Your task to perform on an android device: find snoozed emails in the gmail app Image 0: 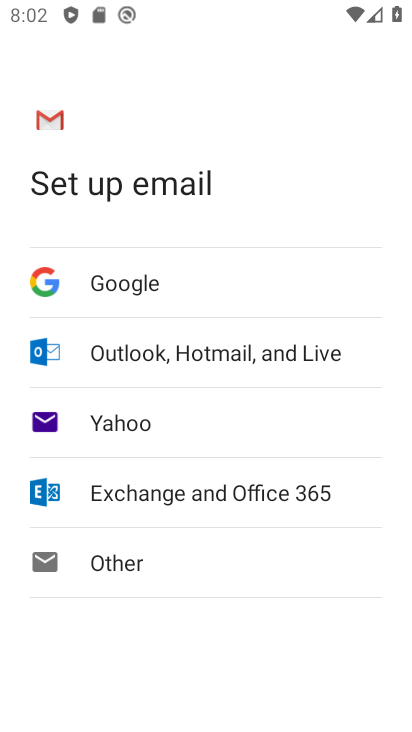
Step 0: press home button
Your task to perform on an android device: find snoozed emails in the gmail app Image 1: 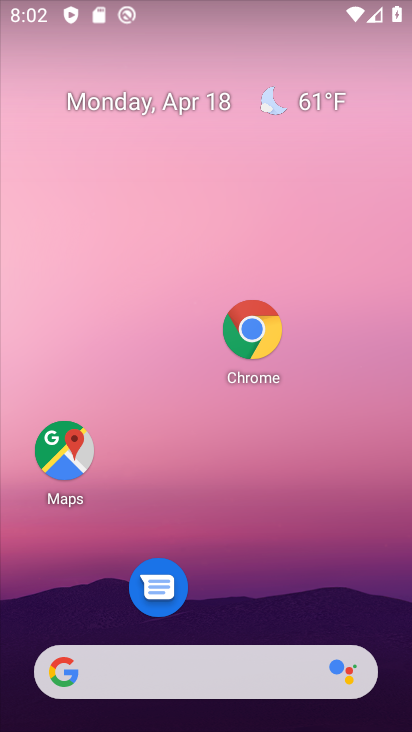
Step 1: drag from (236, 532) to (247, 201)
Your task to perform on an android device: find snoozed emails in the gmail app Image 2: 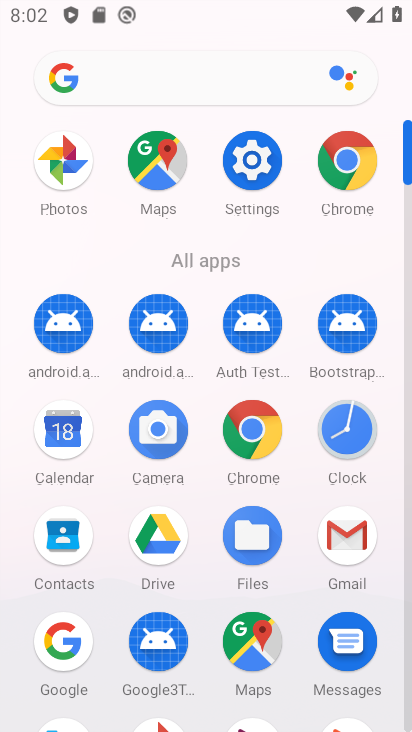
Step 2: click (334, 533)
Your task to perform on an android device: find snoozed emails in the gmail app Image 3: 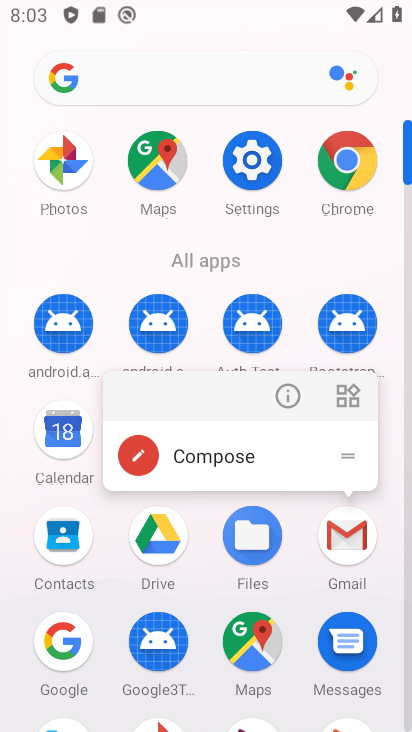
Step 3: click (335, 532)
Your task to perform on an android device: find snoozed emails in the gmail app Image 4: 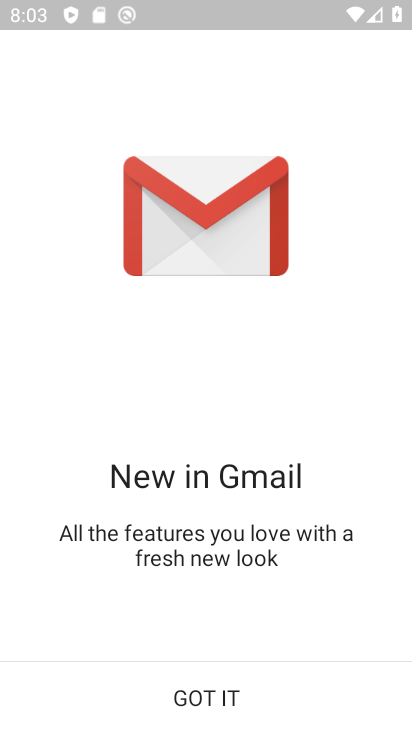
Step 4: click (209, 694)
Your task to perform on an android device: find snoozed emails in the gmail app Image 5: 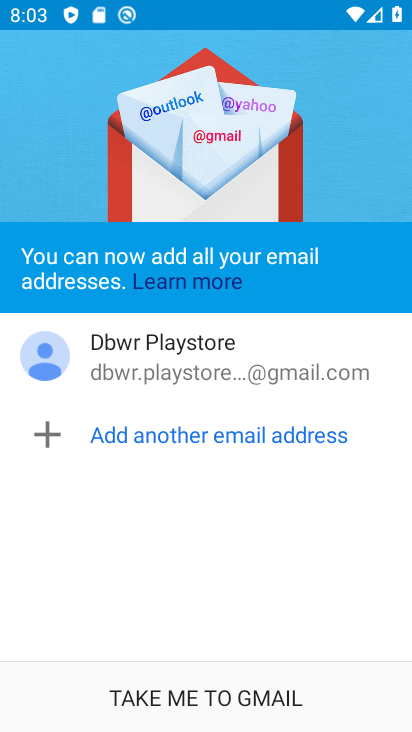
Step 5: click (209, 694)
Your task to perform on an android device: find snoozed emails in the gmail app Image 6: 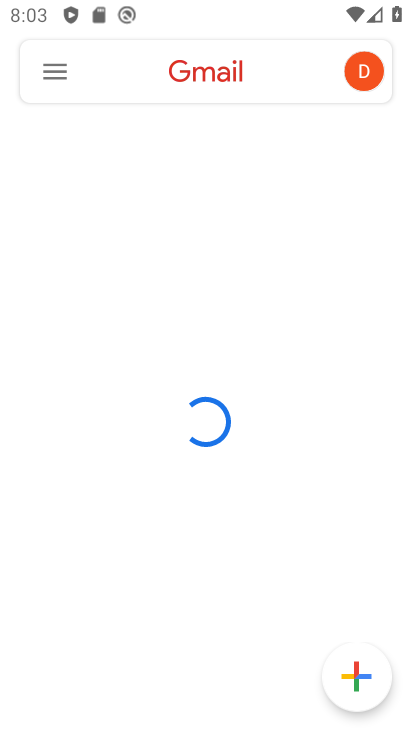
Step 6: click (55, 71)
Your task to perform on an android device: find snoozed emails in the gmail app Image 7: 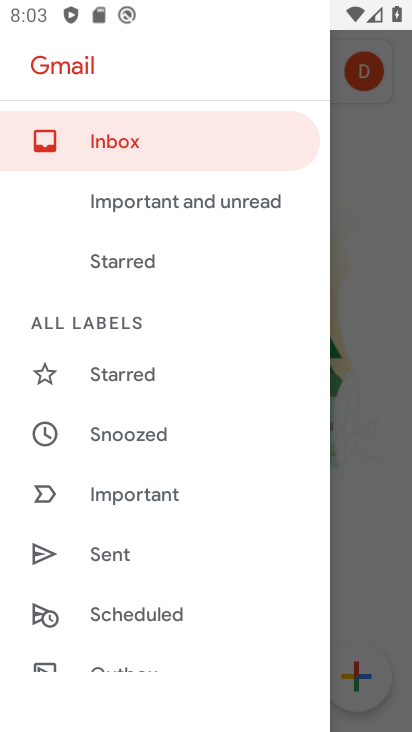
Step 7: click (164, 436)
Your task to perform on an android device: find snoozed emails in the gmail app Image 8: 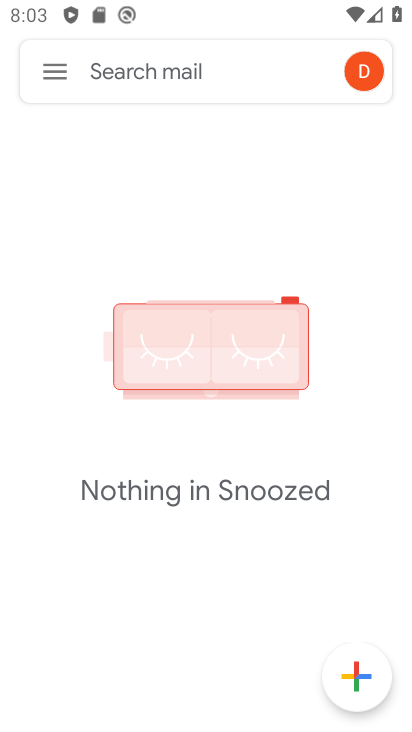
Step 8: task complete